Your task to perform on an android device: toggle improve location accuracy Image 0: 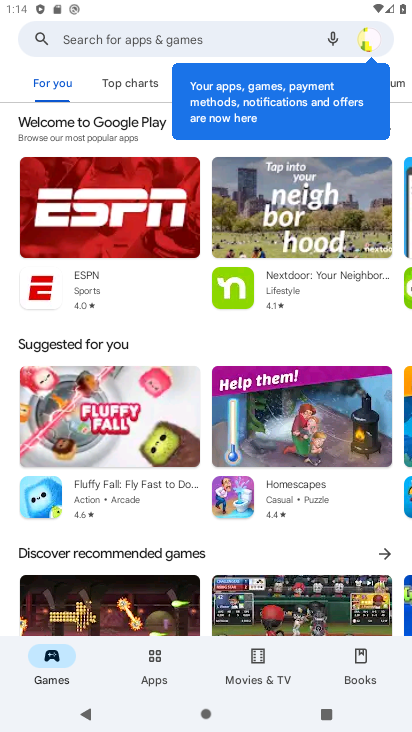
Step 0: press home button
Your task to perform on an android device: toggle improve location accuracy Image 1: 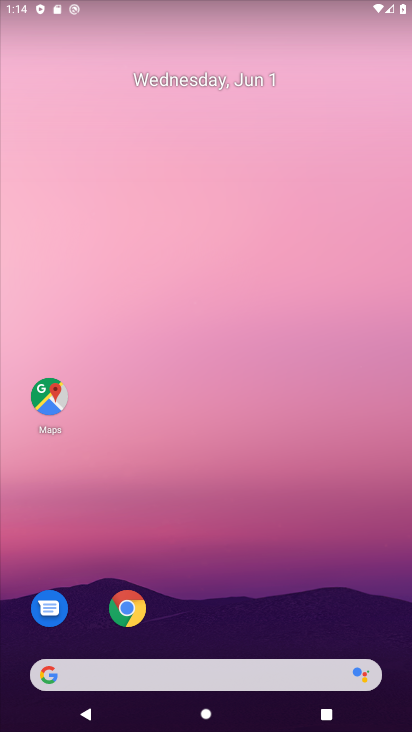
Step 1: drag from (221, 593) to (206, 152)
Your task to perform on an android device: toggle improve location accuracy Image 2: 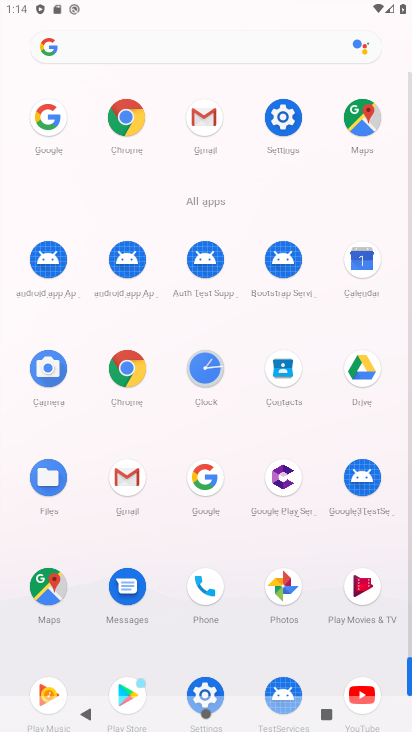
Step 2: click (283, 128)
Your task to perform on an android device: toggle improve location accuracy Image 3: 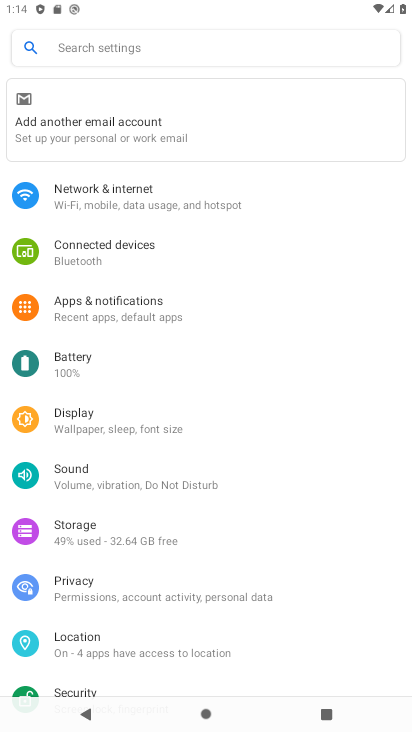
Step 3: click (97, 646)
Your task to perform on an android device: toggle improve location accuracy Image 4: 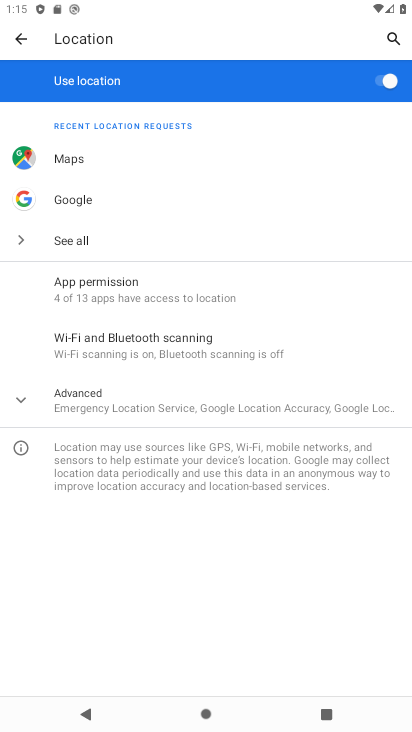
Step 4: click (82, 403)
Your task to perform on an android device: toggle improve location accuracy Image 5: 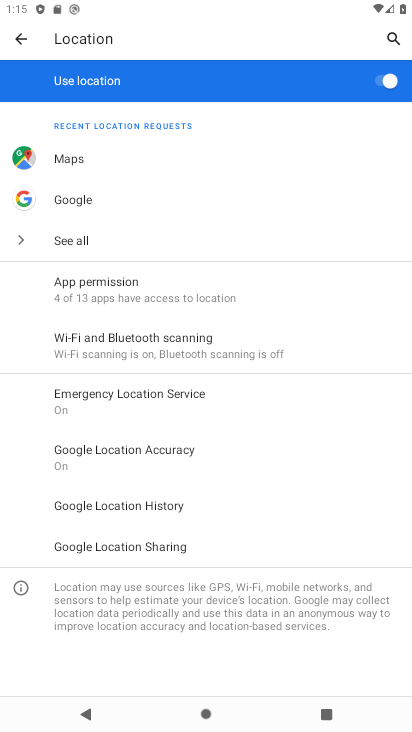
Step 5: click (146, 450)
Your task to perform on an android device: toggle improve location accuracy Image 6: 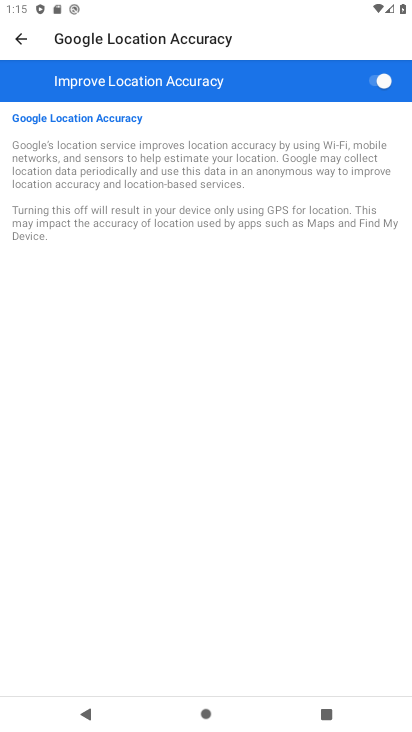
Step 6: click (372, 73)
Your task to perform on an android device: toggle improve location accuracy Image 7: 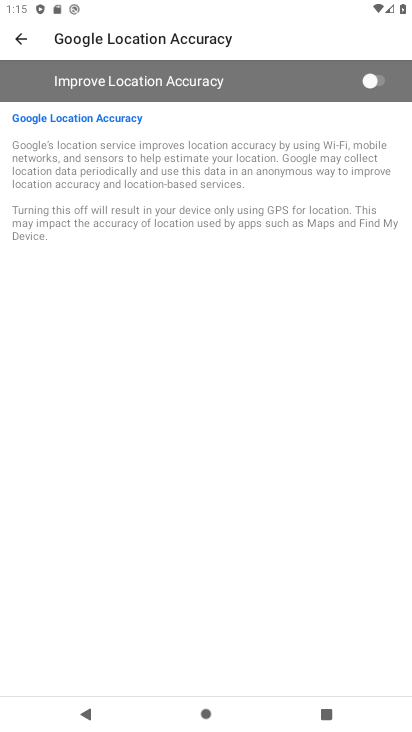
Step 7: task complete